Your task to perform on an android device: check google app version Image 0: 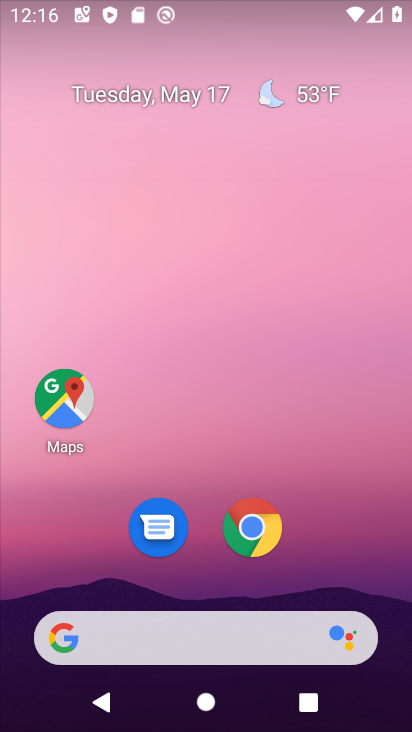
Step 0: drag from (346, 580) to (272, 95)
Your task to perform on an android device: check google app version Image 1: 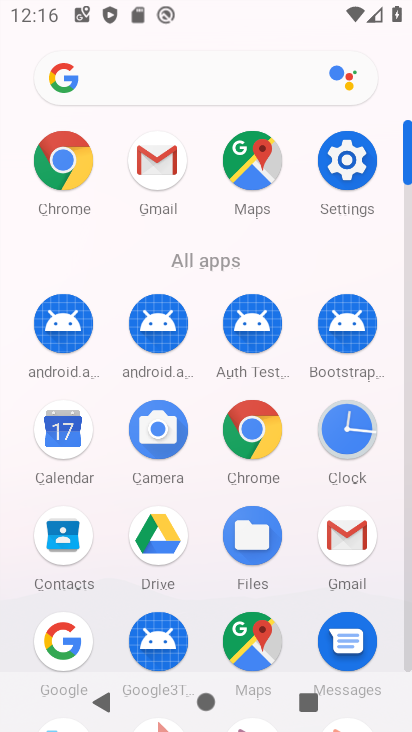
Step 1: click (70, 621)
Your task to perform on an android device: check google app version Image 2: 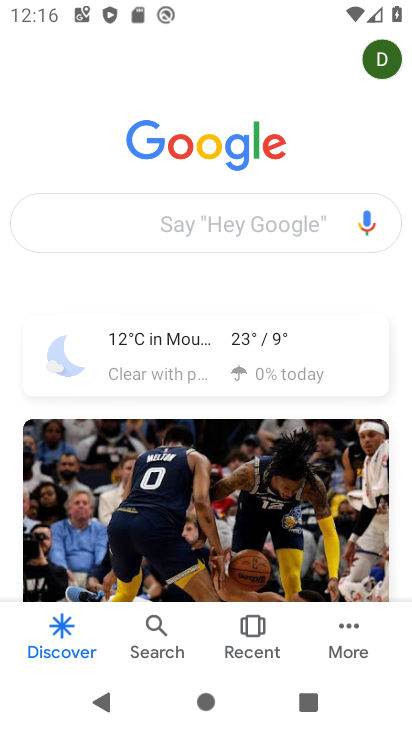
Step 2: click (361, 633)
Your task to perform on an android device: check google app version Image 3: 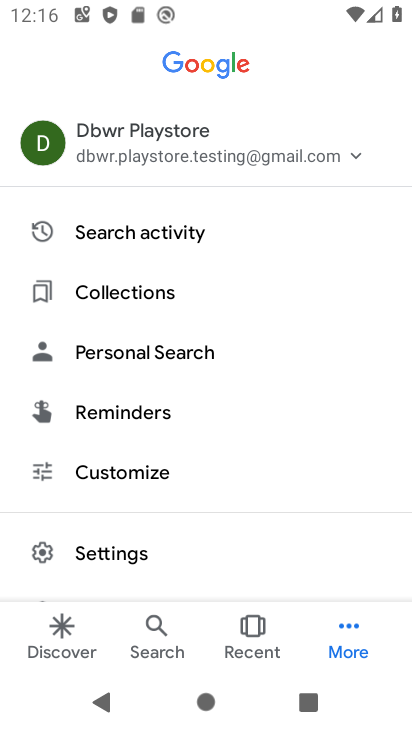
Step 3: click (134, 559)
Your task to perform on an android device: check google app version Image 4: 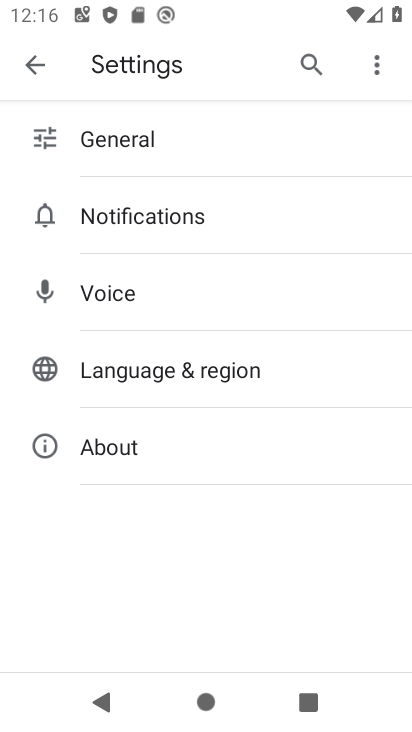
Step 4: click (127, 464)
Your task to perform on an android device: check google app version Image 5: 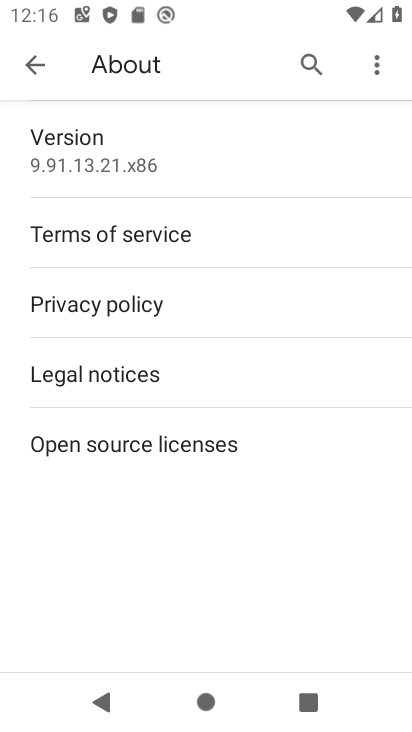
Step 5: task complete